Your task to perform on an android device: Open CNN.com Image 0: 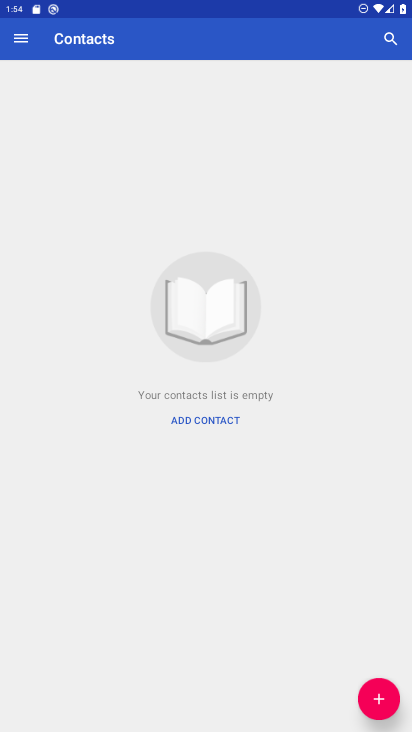
Step 0: press home button
Your task to perform on an android device: Open CNN.com Image 1: 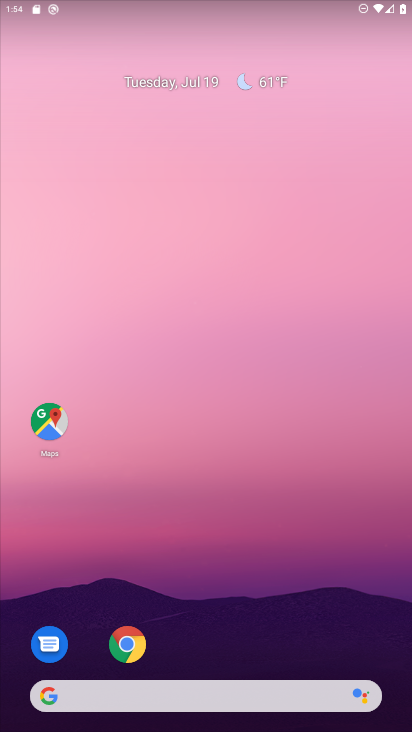
Step 1: drag from (391, 721) to (352, 192)
Your task to perform on an android device: Open CNN.com Image 2: 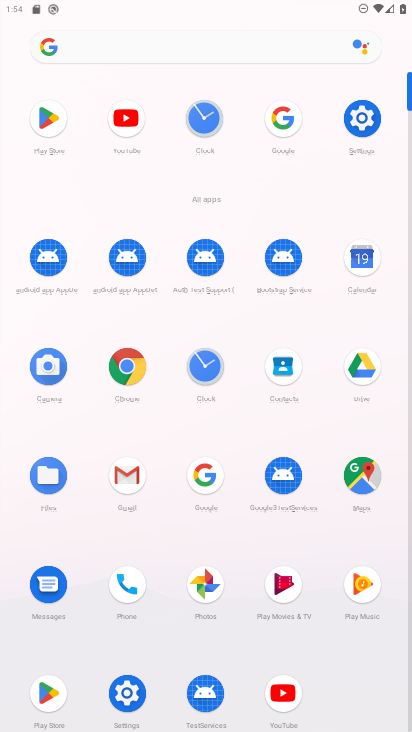
Step 2: click (114, 369)
Your task to perform on an android device: Open CNN.com Image 3: 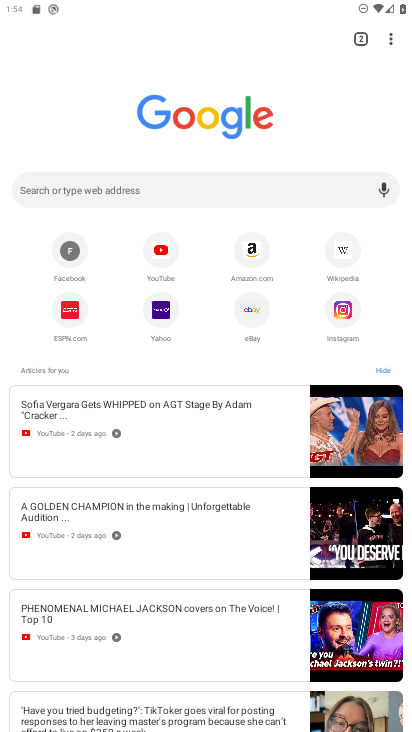
Step 3: click (144, 194)
Your task to perform on an android device: Open CNN.com Image 4: 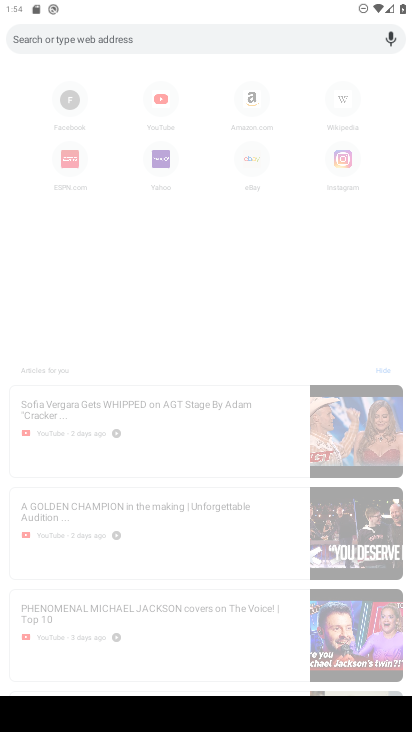
Step 4: type "CNN.com"
Your task to perform on an android device: Open CNN.com Image 5: 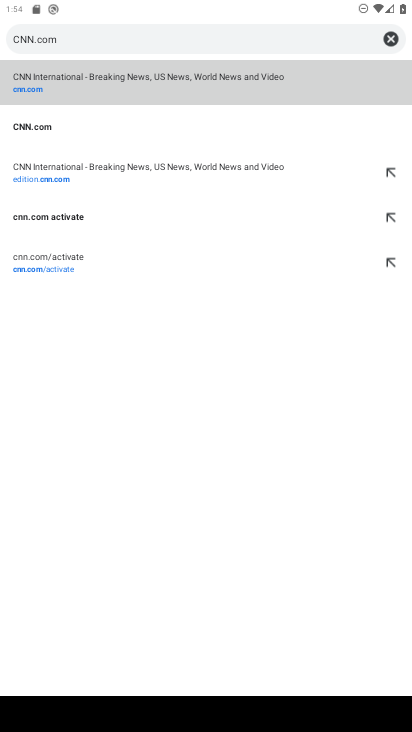
Step 5: click (34, 118)
Your task to perform on an android device: Open CNN.com Image 6: 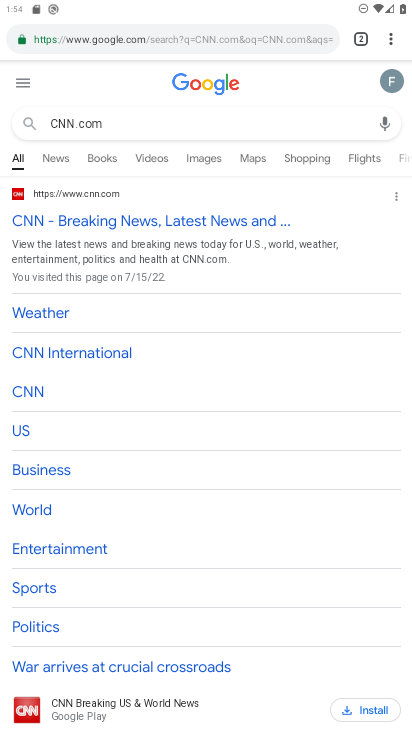
Step 6: task complete